Your task to perform on an android device: Open CNN.com Image 0: 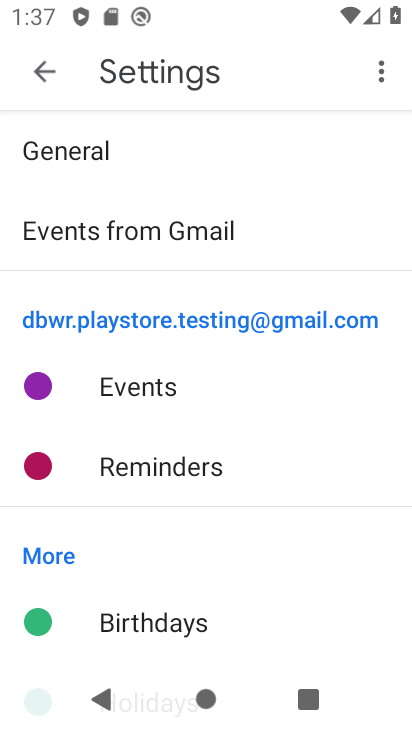
Step 0: press home button
Your task to perform on an android device: Open CNN.com Image 1: 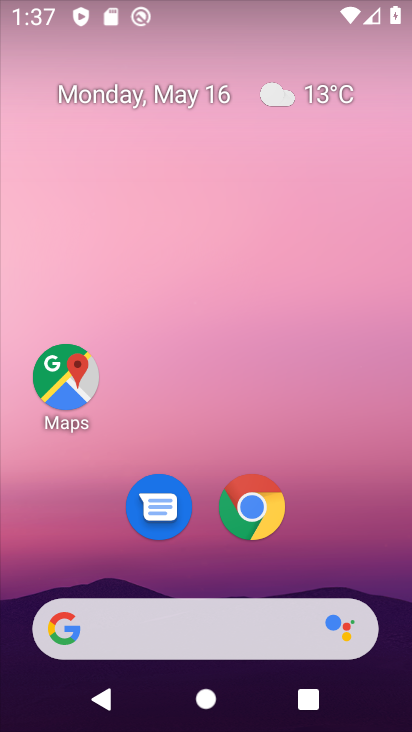
Step 1: drag from (384, 444) to (396, 83)
Your task to perform on an android device: Open CNN.com Image 2: 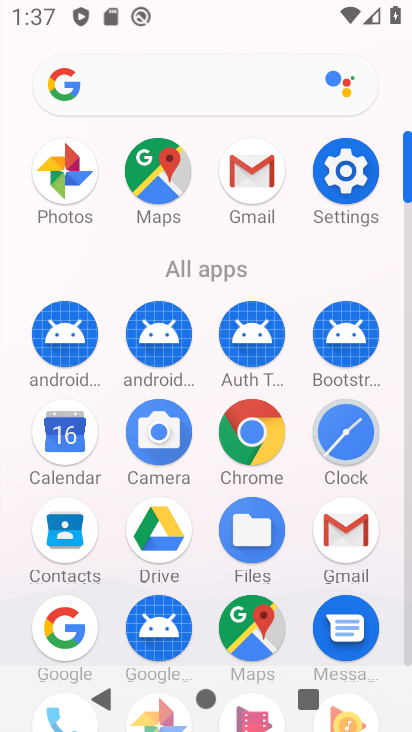
Step 2: click (255, 438)
Your task to perform on an android device: Open CNN.com Image 3: 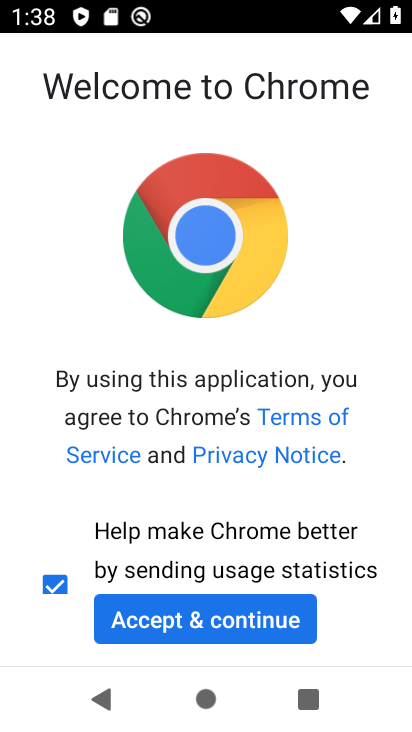
Step 3: click (267, 617)
Your task to perform on an android device: Open CNN.com Image 4: 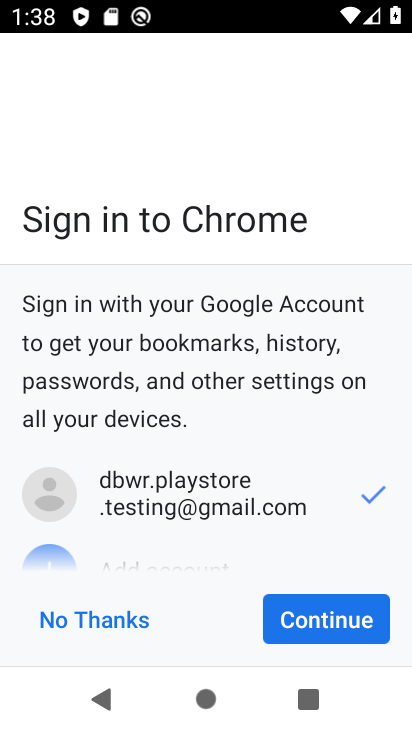
Step 4: click (267, 617)
Your task to perform on an android device: Open CNN.com Image 5: 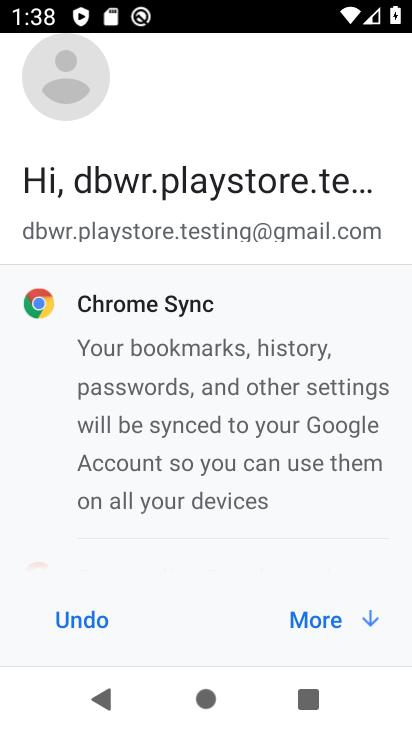
Step 5: click (294, 636)
Your task to perform on an android device: Open CNN.com Image 6: 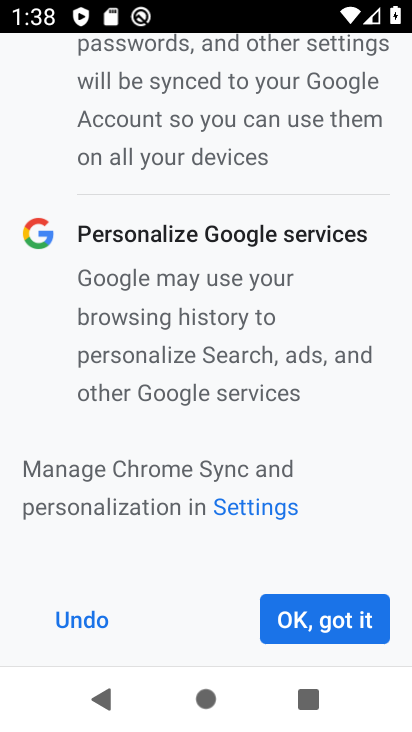
Step 6: click (295, 637)
Your task to perform on an android device: Open CNN.com Image 7: 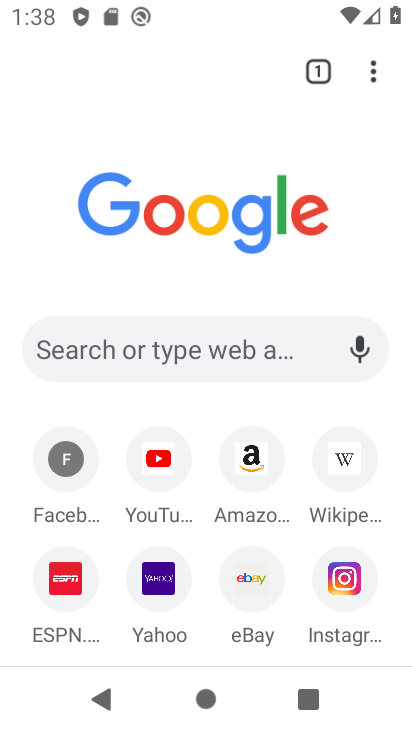
Step 7: click (227, 351)
Your task to perform on an android device: Open CNN.com Image 8: 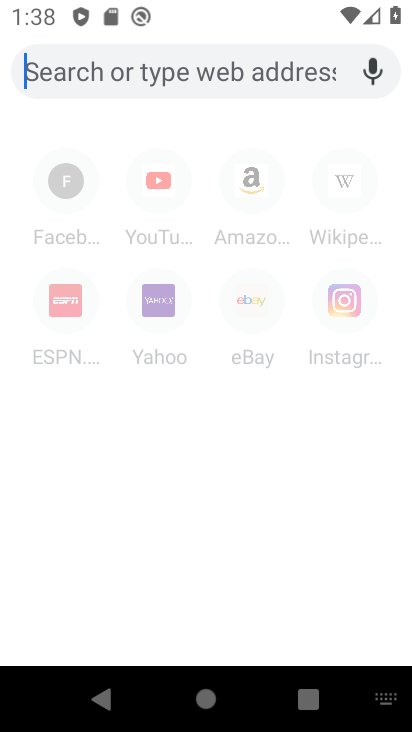
Step 8: type "cnn.com"
Your task to perform on an android device: Open CNN.com Image 9: 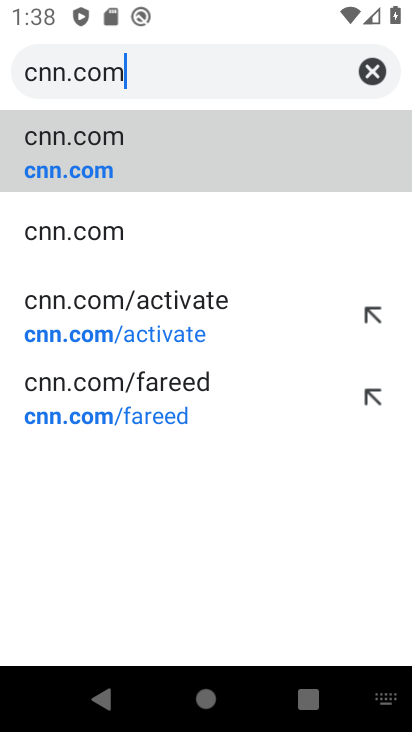
Step 9: click (120, 162)
Your task to perform on an android device: Open CNN.com Image 10: 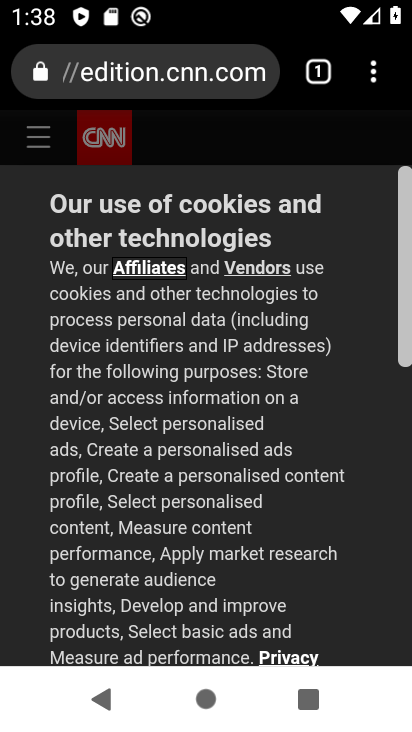
Step 10: task complete